Your task to perform on an android device: Search for razer blackwidow on bestbuy.com, select the first entry, and add it to the cart. Image 0: 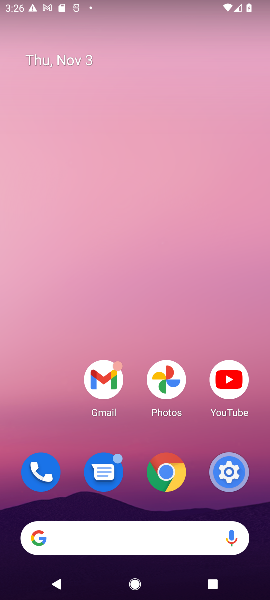
Step 0: click (147, 539)
Your task to perform on an android device: Search for razer blackwidow on bestbuy.com, select the first entry, and add it to the cart. Image 1: 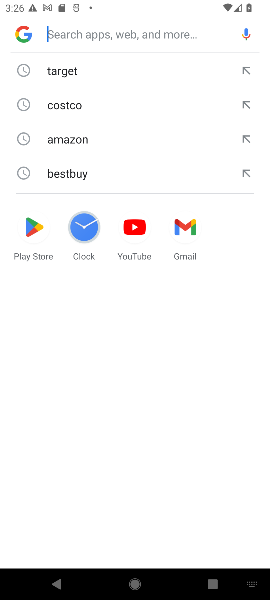
Step 1: type "bestbuy"
Your task to perform on an android device: Search for razer blackwidow on bestbuy.com, select the first entry, and add it to the cart. Image 2: 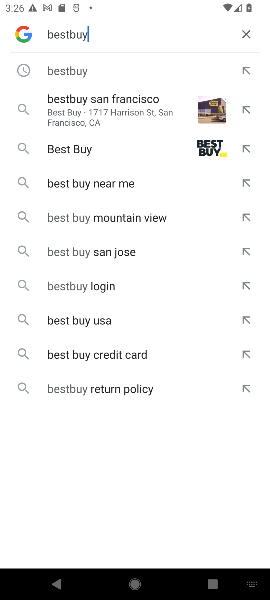
Step 2: click (119, 78)
Your task to perform on an android device: Search for razer blackwidow on bestbuy.com, select the first entry, and add it to the cart. Image 3: 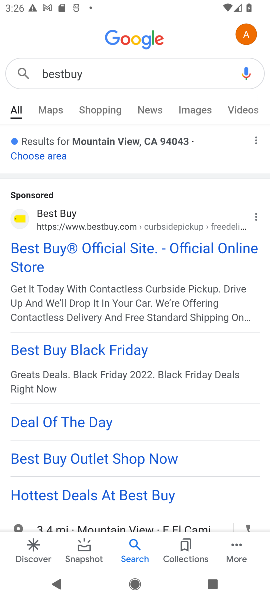
Step 3: click (92, 262)
Your task to perform on an android device: Search for razer blackwidow on bestbuy.com, select the first entry, and add it to the cart. Image 4: 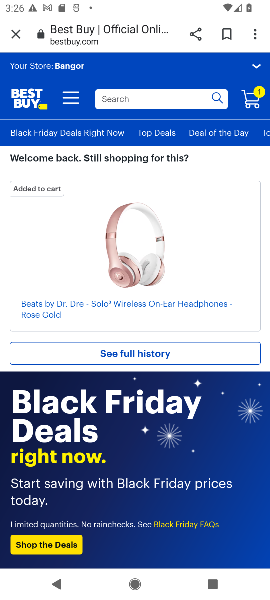
Step 4: click (126, 92)
Your task to perform on an android device: Search for razer blackwidow on bestbuy.com, select the first entry, and add it to the cart. Image 5: 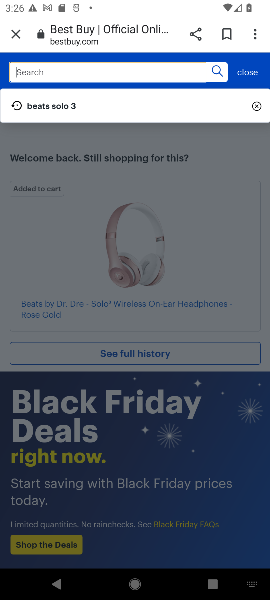
Step 5: type "razer blackwindow"
Your task to perform on an android device: Search for razer blackwidow on bestbuy.com, select the first entry, and add it to the cart. Image 6: 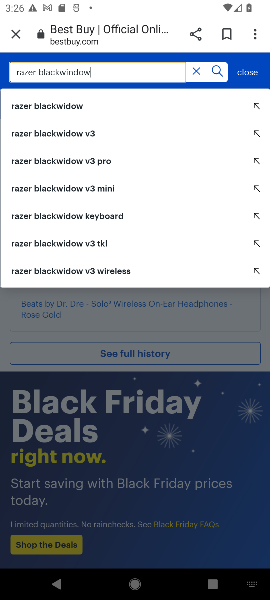
Step 6: click (113, 107)
Your task to perform on an android device: Search for razer blackwidow on bestbuy.com, select the first entry, and add it to the cart. Image 7: 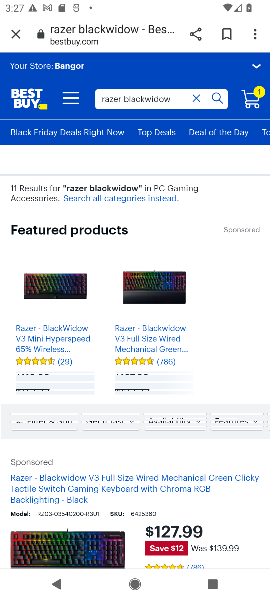
Step 7: click (200, 553)
Your task to perform on an android device: Search for razer blackwidow on bestbuy.com, select the first entry, and add it to the cart. Image 8: 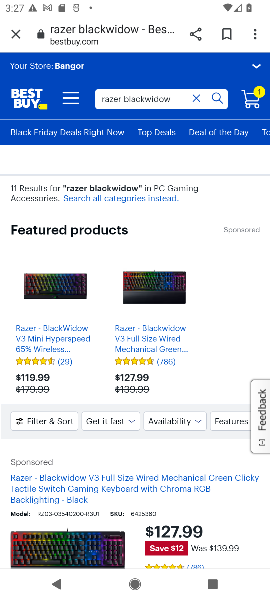
Step 8: click (44, 339)
Your task to perform on an android device: Search for razer blackwidow on bestbuy.com, select the first entry, and add it to the cart. Image 9: 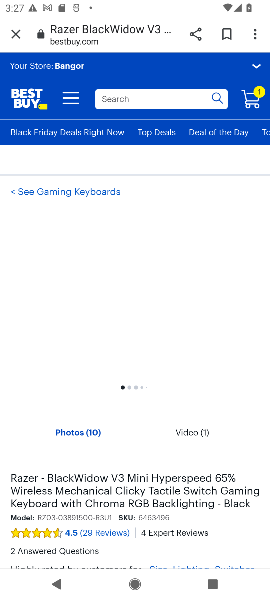
Step 9: drag from (181, 461) to (140, 49)
Your task to perform on an android device: Search for razer blackwidow on bestbuy.com, select the first entry, and add it to the cart. Image 10: 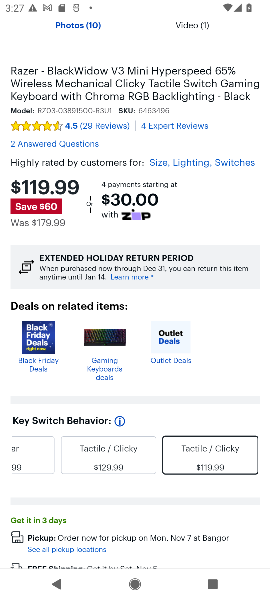
Step 10: drag from (194, 379) to (189, 87)
Your task to perform on an android device: Search for razer blackwidow on bestbuy.com, select the first entry, and add it to the cart. Image 11: 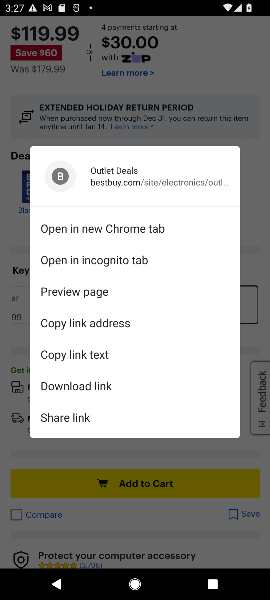
Step 11: click (160, 452)
Your task to perform on an android device: Search for razer blackwidow on bestbuy.com, select the first entry, and add it to the cart. Image 12: 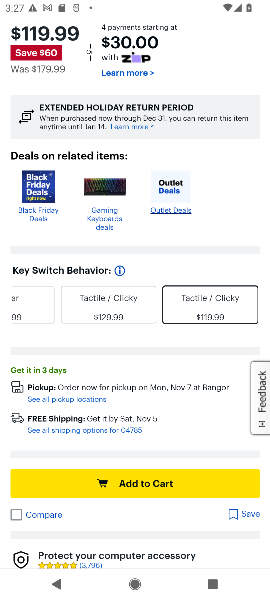
Step 12: click (168, 483)
Your task to perform on an android device: Search for razer blackwidow on bestbuy.com, select the first entry, and add it to the cart. Image 13: 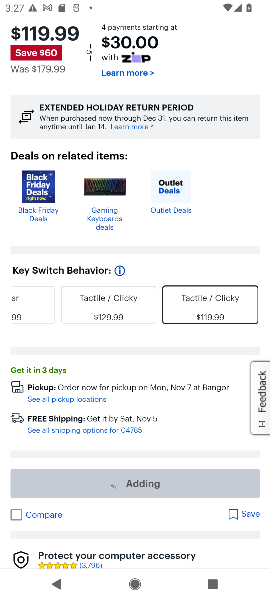
Step 13: task complete